Your task to perform on an android device: toggle sleep mode Image 0: 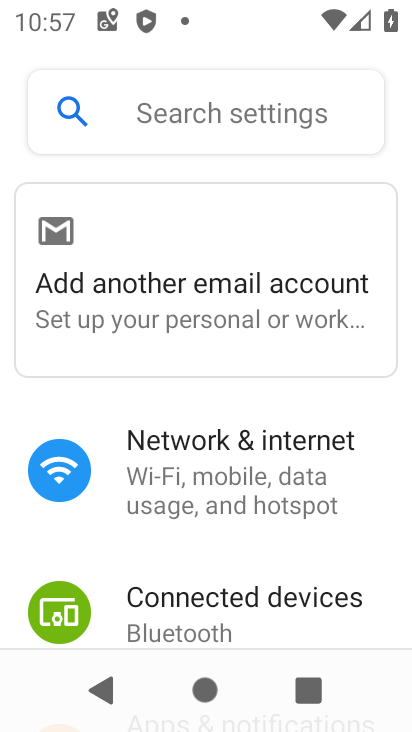
Step 0: press home button
Your task to perform on an android device: toggle sleep mode Image 1: 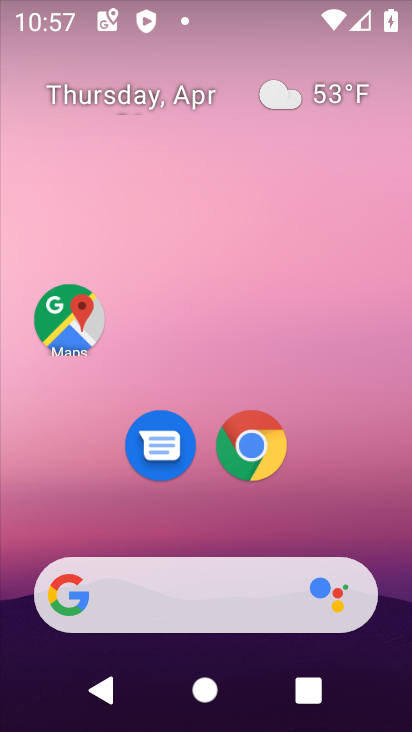
Step 1: drag from (185, 603) to (337, 85)
Your task to perform on an android device: toggle sleep mode Image 2: 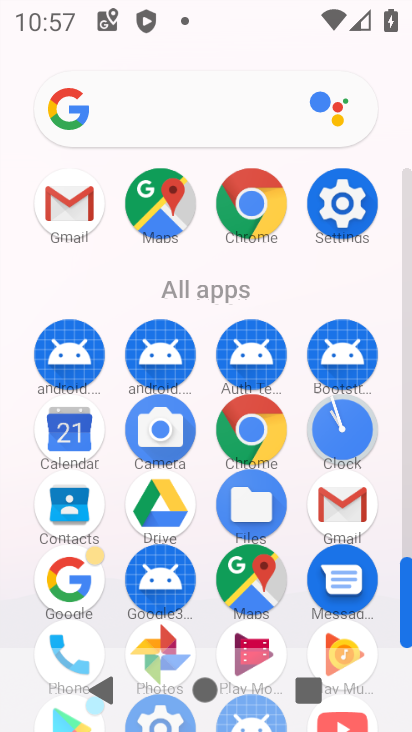
Step 2: click (346, 213)
Your task to perform on an android device: toggle sleep mode Image 3: 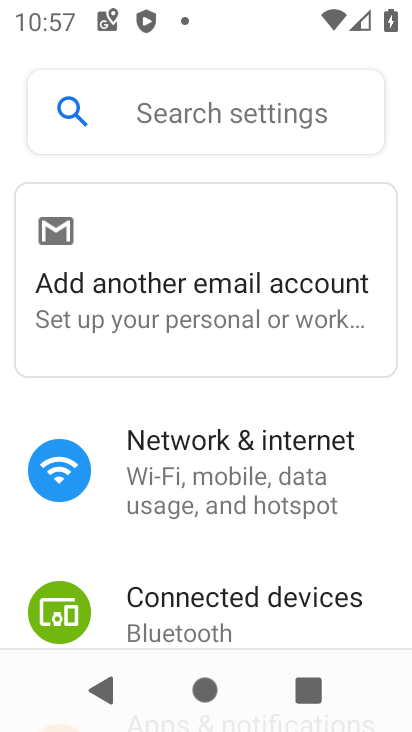
Step 3: drag from (260, 547) to (377, 216)
Your task to perform on an android device: toggle sleep mode Image 4: 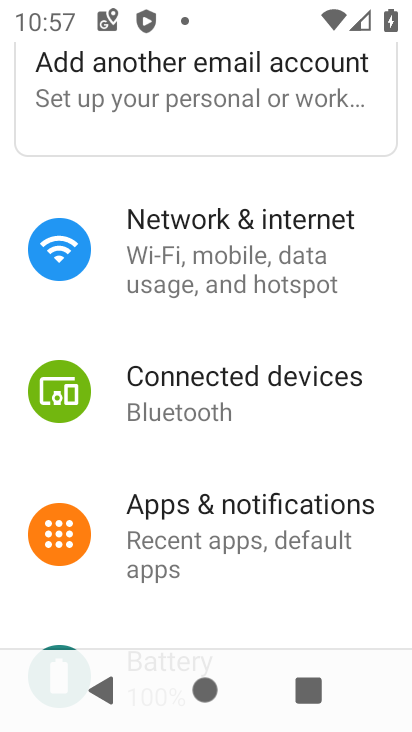
Step 4: drag from (235, 473) to (379, 100)
Your task to perform on an android device: toggle sleep mode Image 5: 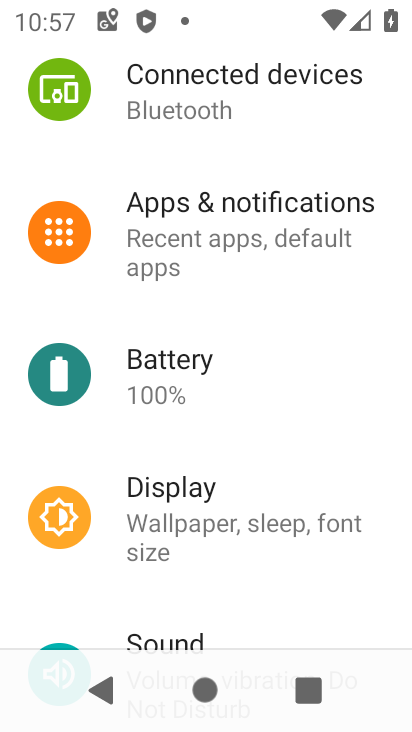
Step 5: click (253, 514)
Your task to perform on an android device: toggle sleep mode Image 6: 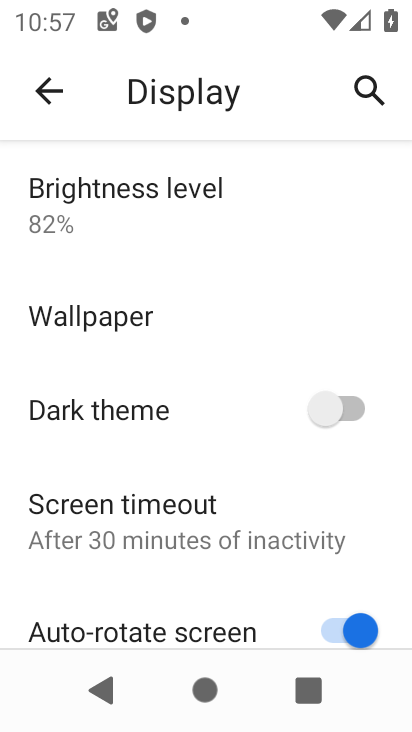
Step 6: task complete